Your task to perform on an android device: toggle pop-ups in chrome Image 0: 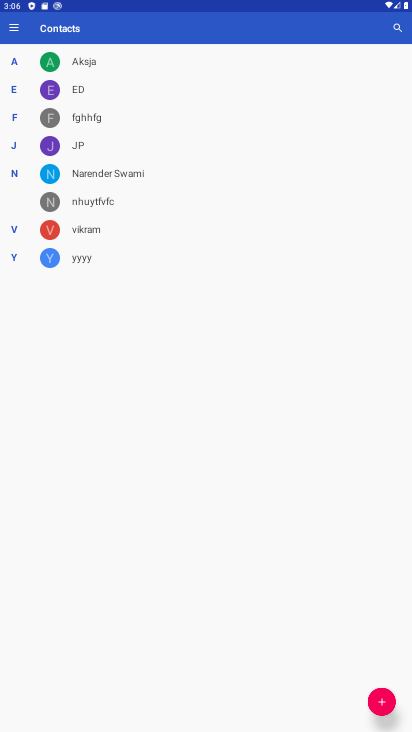
Step 0: press home button
Your task to perform on an android device: toggle pop-ups in chrome Image 1: 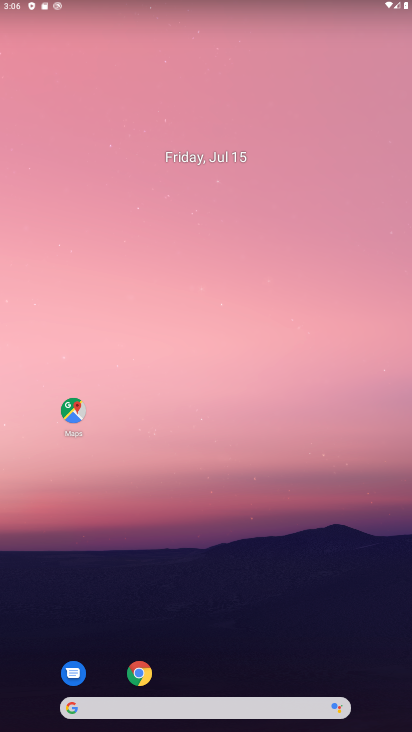
Step 1: drag from (199, 691) to (316, 284)
Your task to perform on an android device: toggle pop-ups in chrome Image 2: 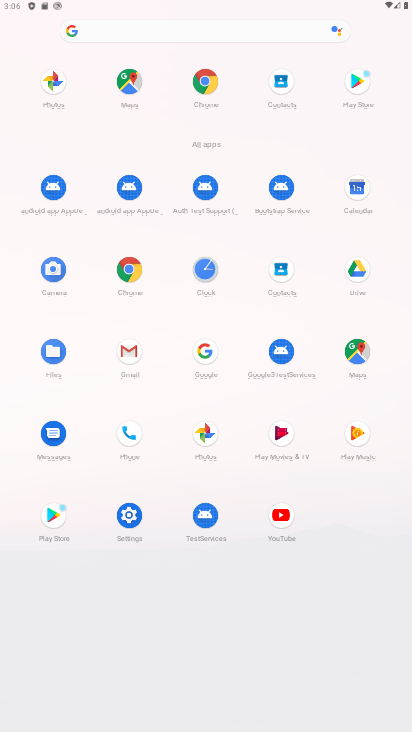
Step 2: click (134, 267)
Your task to perform on an android device: toggle pop-ups in chrome Image 3: 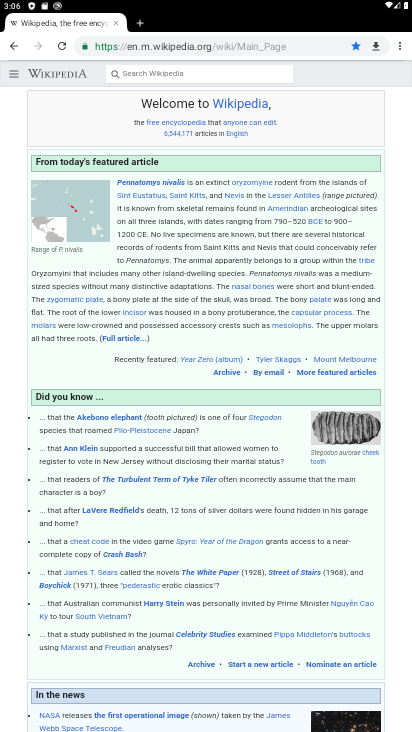
Step 3: drag from (397, 37) to (321, 286)
Your task to perform on an android device: toggle pop-ups in chrome Image 4: 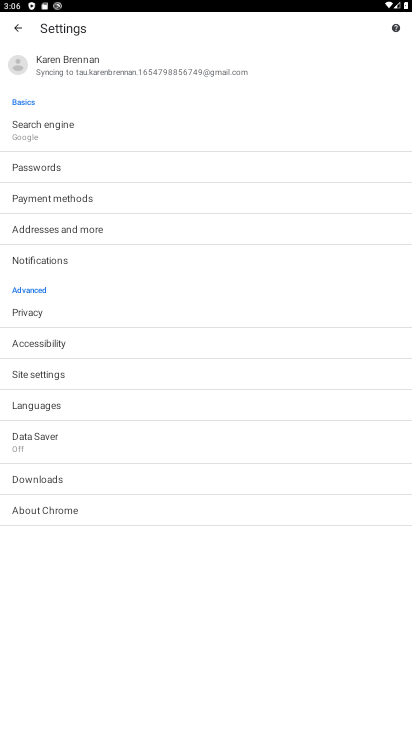
Step 4: click (69, 374)
Your task to perform on an android device: toggle pop-ups in chrome Image 5: 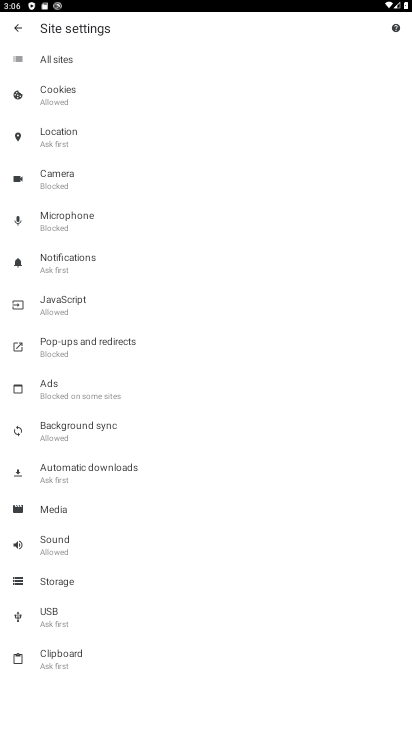
Step 5: click (98, 342)
Your task to perform on an android device: toggle pop-ups in chrome Image 6: 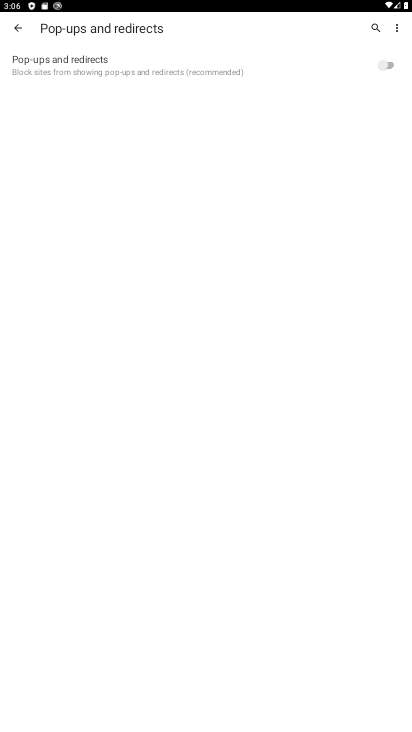
Step 6: click (406, 64)
Your task to perform on an android device: toggle pop-ups in chrome Image 7: 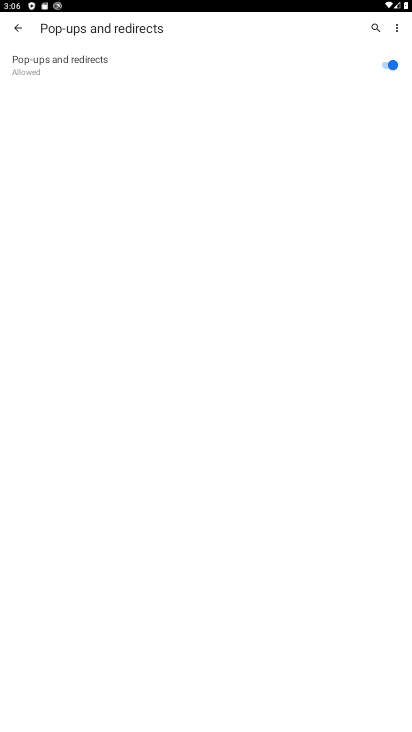
Step 7: task complete